Your task to perform on an android device: Open the phone app and click the voicemail tab. Image 0: 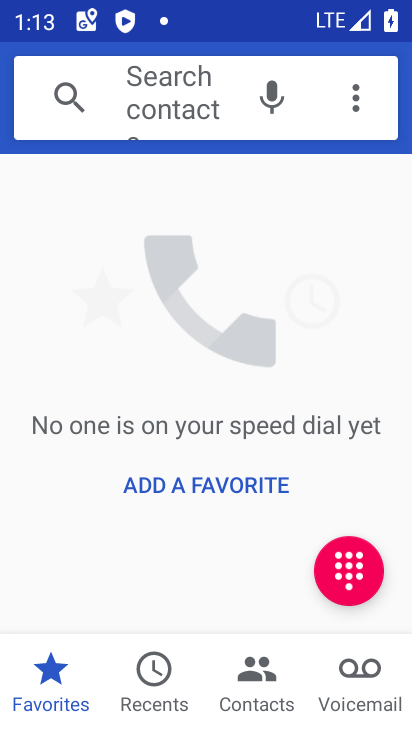
Step 0: press home button
Your task to perform on an android device: Open the phone app and click the voicemail tab. Image 1: 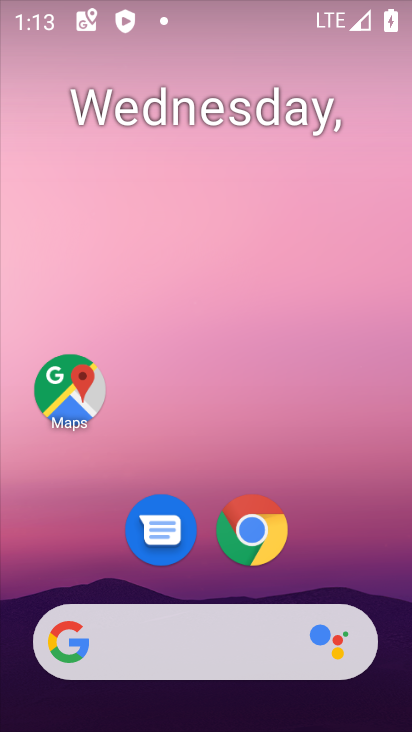
Step 1: drag from (387, 472) to (307, 266)
Your task to perform on an android device: Open the phone app and click the voicemail tab. Image 2: 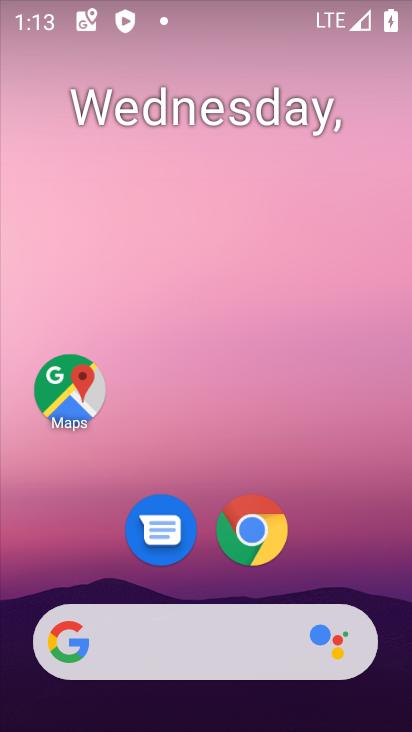
Step 2: drag from (344, 534) to (340, 275)
Your task to perform on an android device: Open the phone app and click the voicemail tab. Image 3: 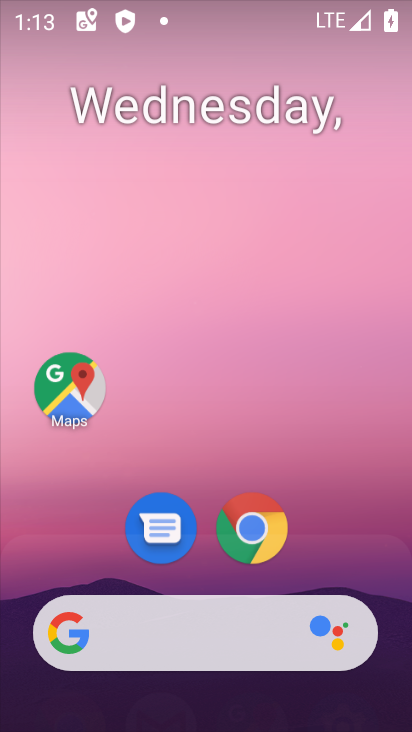
Step 3: drag from (355, 583) to (302, 260)
Your task to perform on an android device: Open the phone app and click the voicemail tab. Image 4: 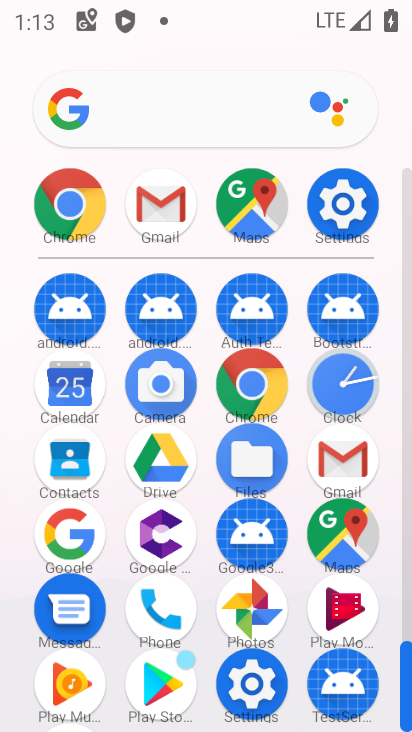
Step 4: click (177, 623)
Your task to perform on an android device: Open the phone app and click the voicemail tab. Image 5: 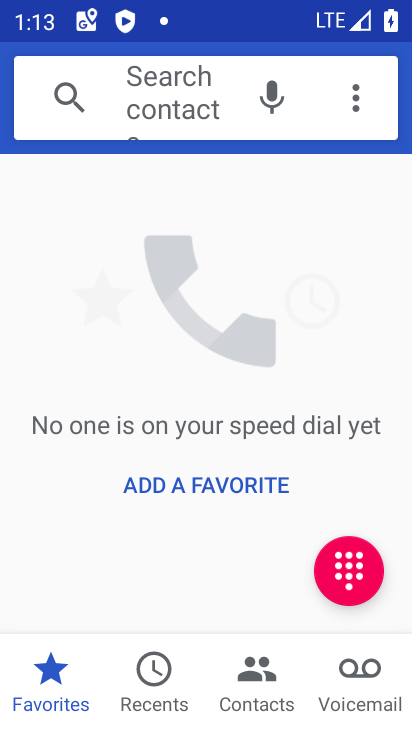
Step 5: click (346, 685)
Your task to perform on an android device: Open the phone app and click the voicemail tab. Image 6: 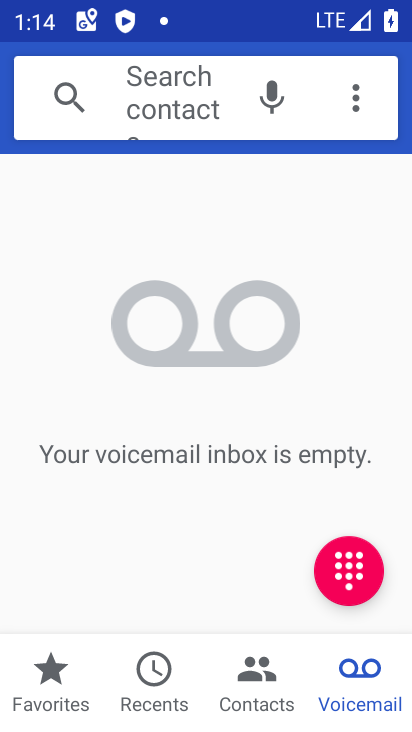
Step 6: task complete